Your task to perform on an android device: move a message to another label in the gmail app Image 0: 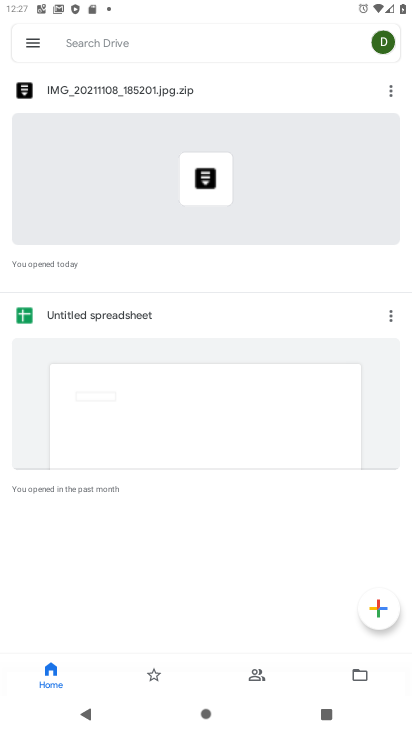
Step 0: press home button
Your task to perform on an android device: move a message to another label in the gmail app Image 1: 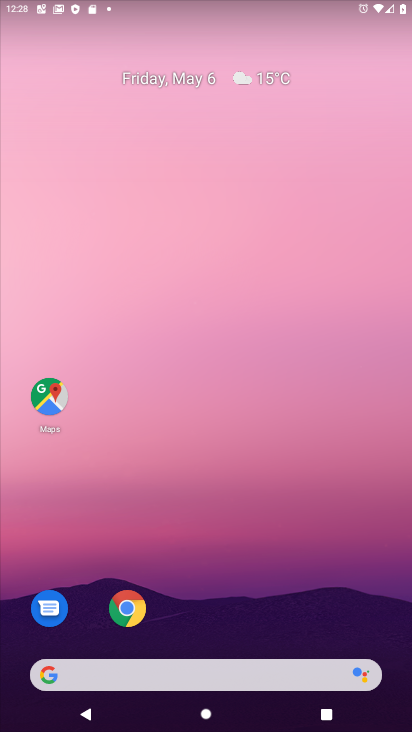
Step 1: drag from (295, 603) to (309, 7)
Your task to perform on an android device: move a message to another label in the gmail app Image 2: 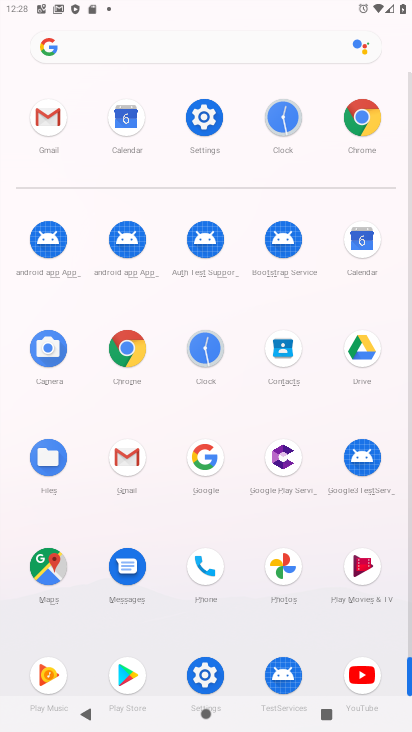
Step 2: click (43, 121)
Your task to perform on an android device: move a message to another label in the gmail app Image 3: 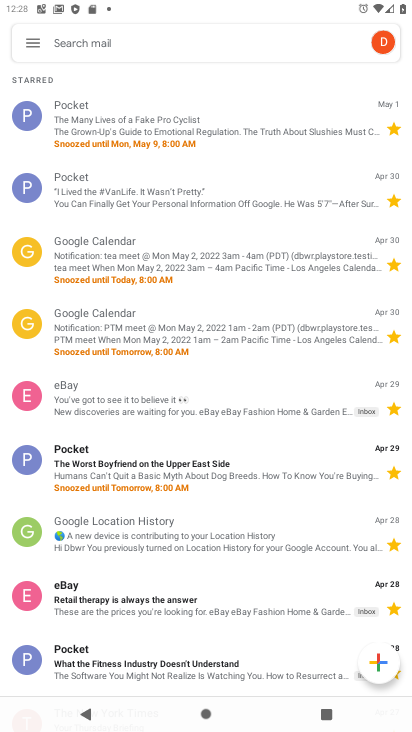
Step 3: click (23, 123)
Your task to perform on an android device: move a message to another label in the gmail app Image 4: 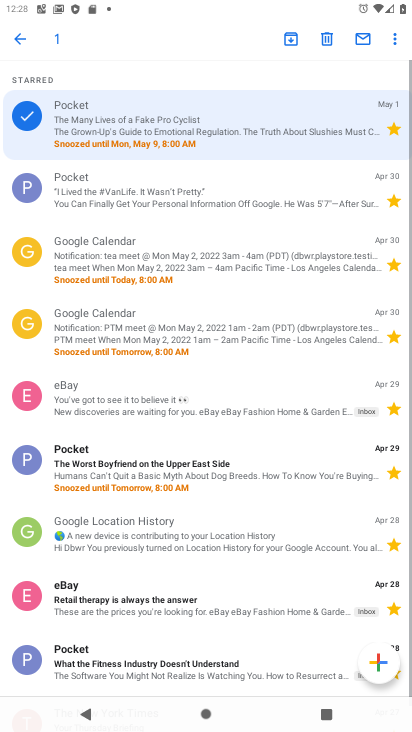
Step 4: click (398, 43)
Your task to perform on an android device: move a message to another label in the gmail app Image 5: 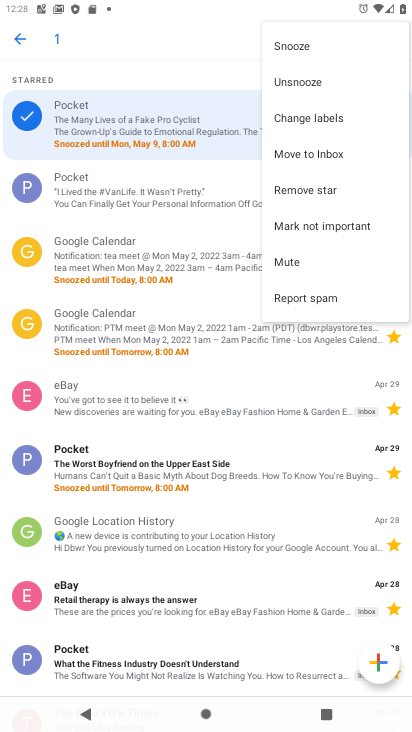
Step 5: click (325, 123)
Your task to perform on an android device: move a message to another label in the gmail app Image 6: 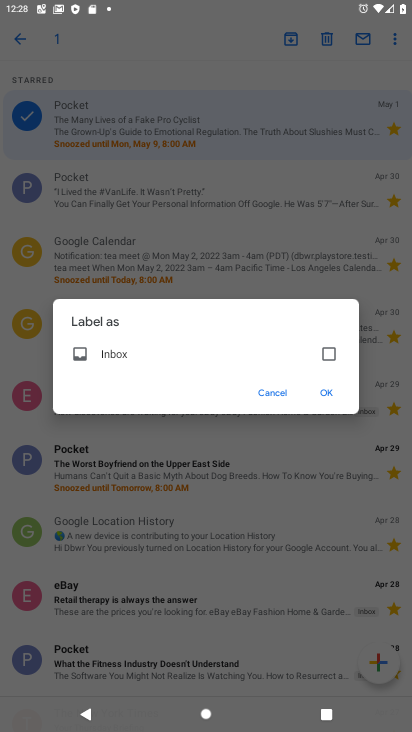
Step 6: click (175, 363)
Your task to perform on an android device: move a message to another label in the gmail app Image 7: 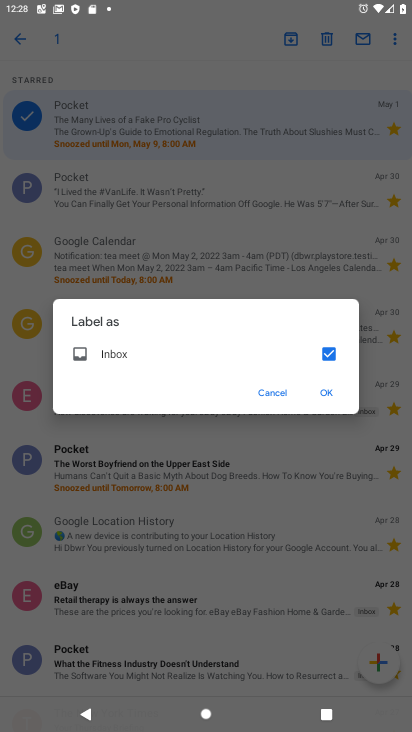
Step 7: click (323, 390)
Your task to perform on an android device: move a message to another label in the gmail app Image 8: 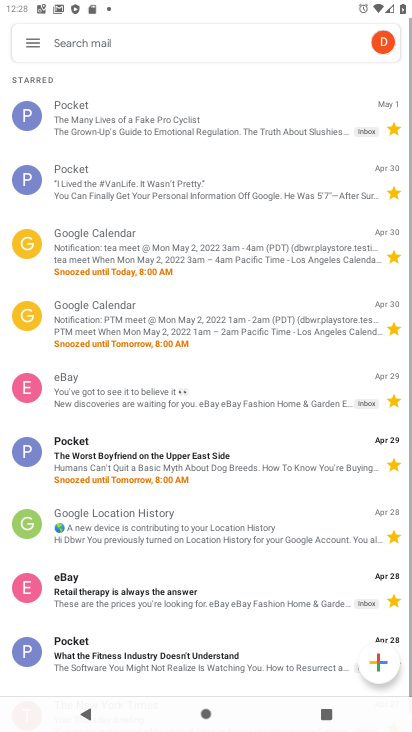
Step 8: task complete